Your task to perform on an android device: install app "Google Keep" Image 0: 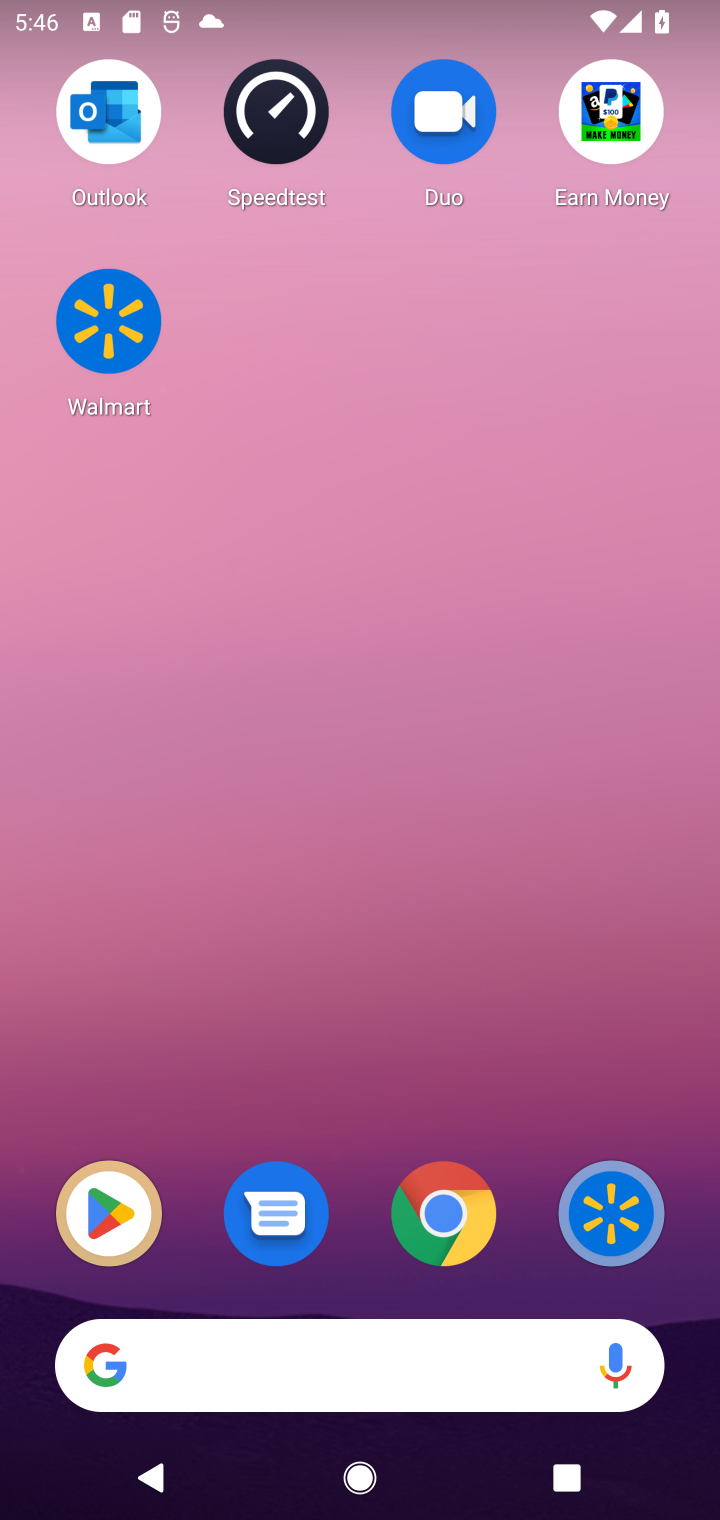
Step 0: drag from (514, 879) to (609, 0)
Your task to perform on an android device: install app "Google Keep" Image 1: 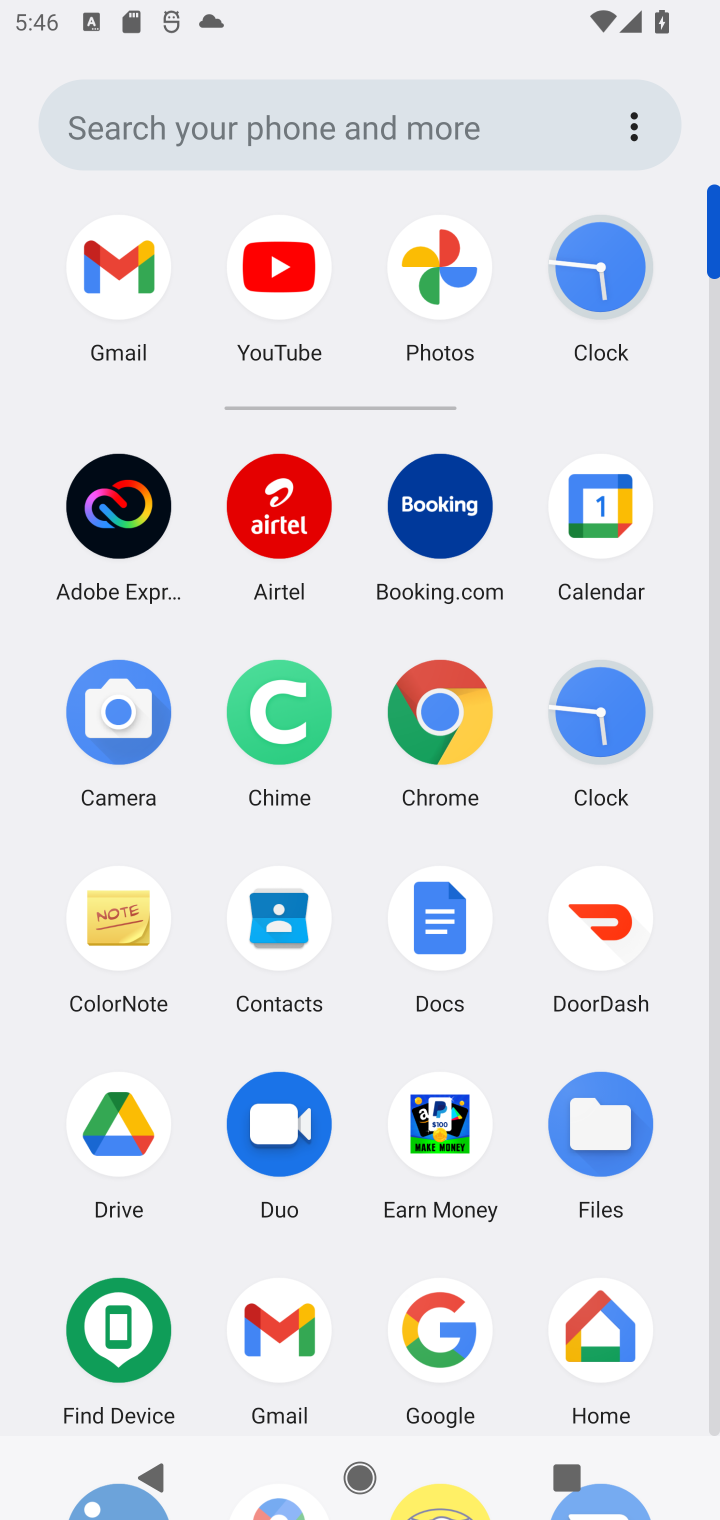
Step 1: drag from (528, 1062) to (614, 407)
Your task to perform on an android device: install app "Google Keep" Image 2: 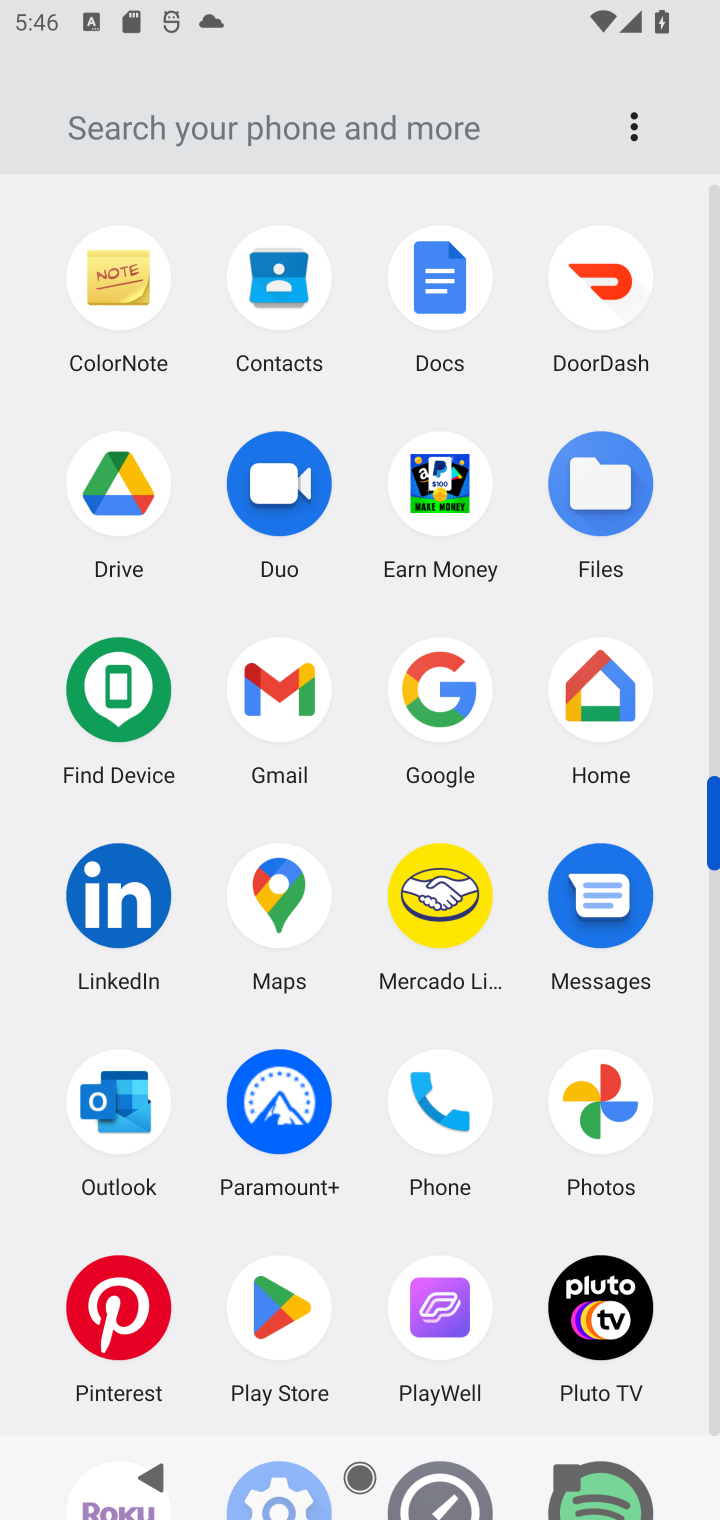
Step 2: click (306, 1266)
Your task to perform on an android device: install app "Google Keep" Image 3: 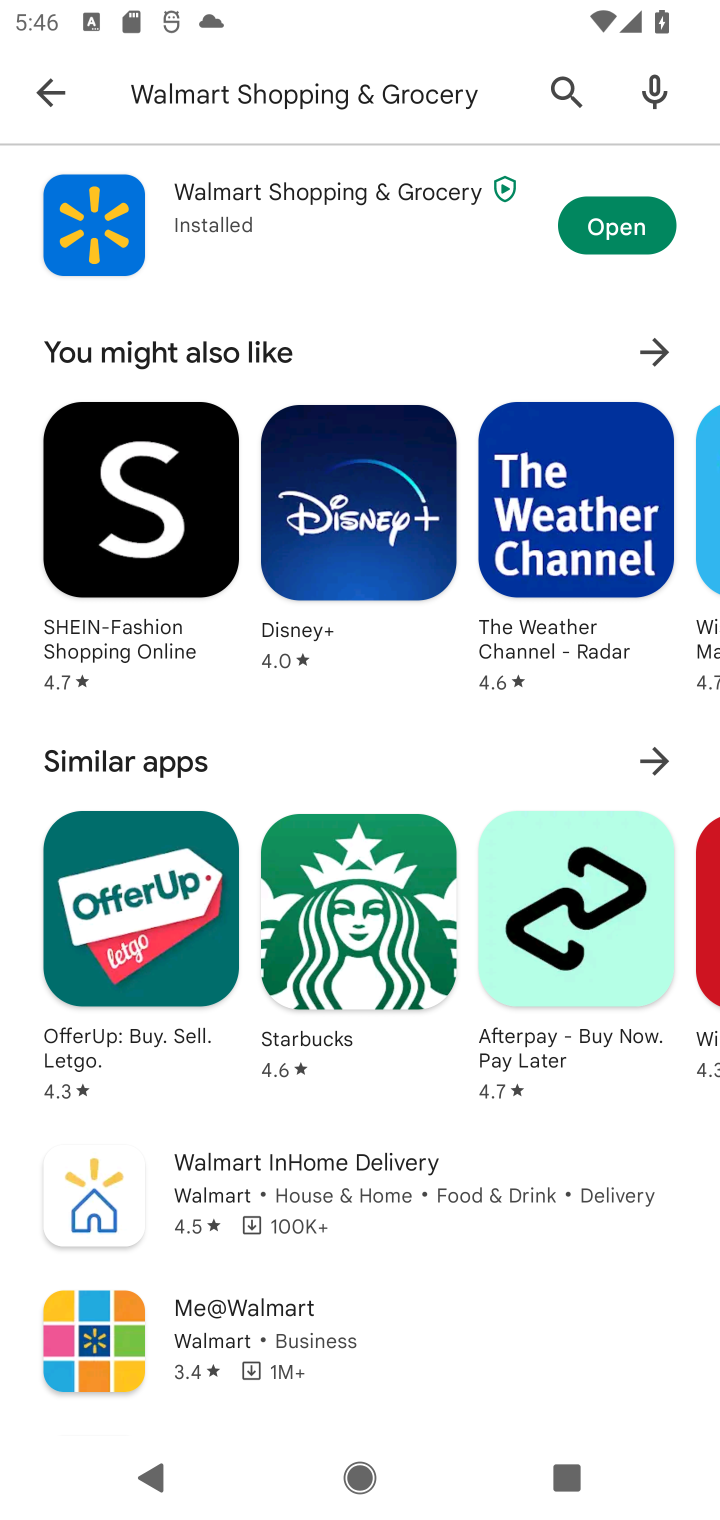
Step 3: click (416, 128)
Your task to perform on an android device: install app "Google Keep" Image 4: 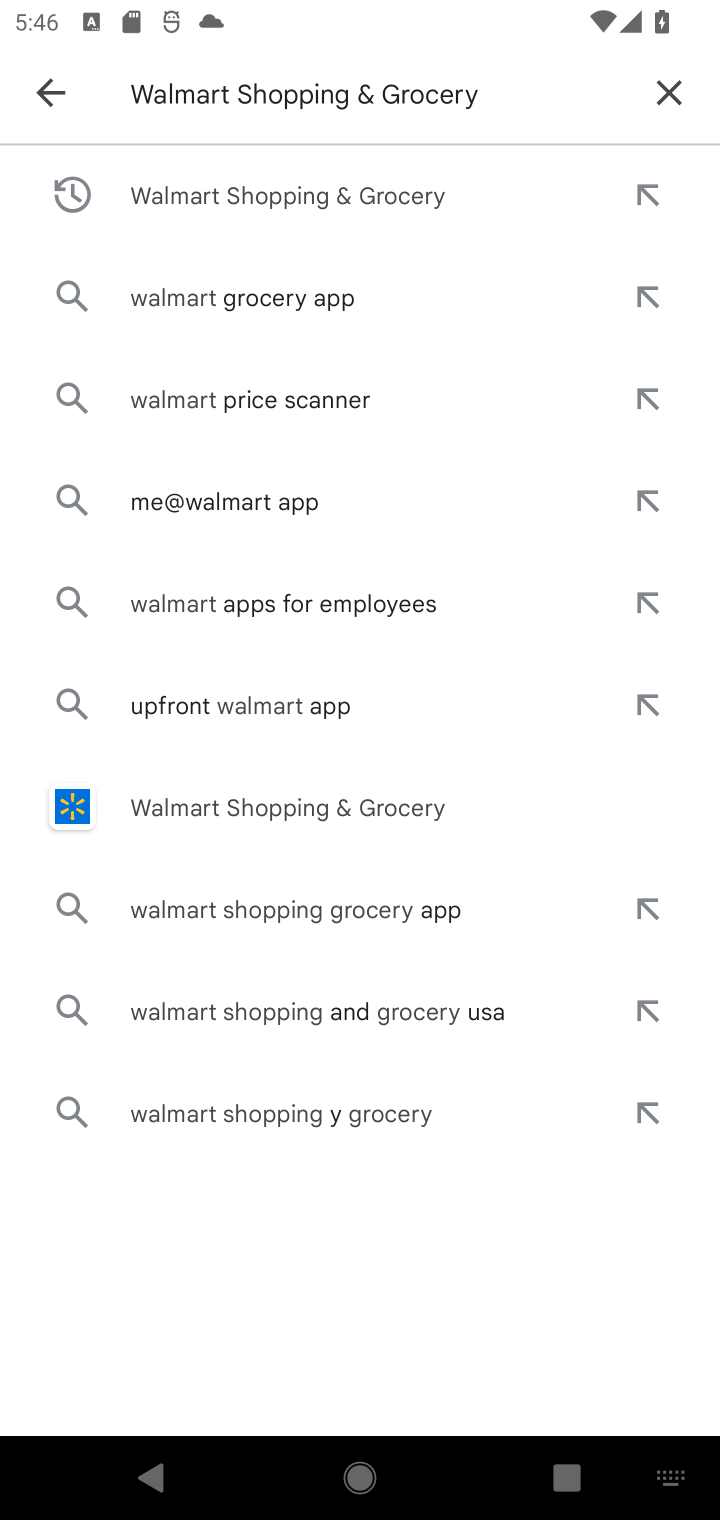
Step 4: click (672, 99)
Your task to perform on an android device: install app "Google Keep" Image 5: 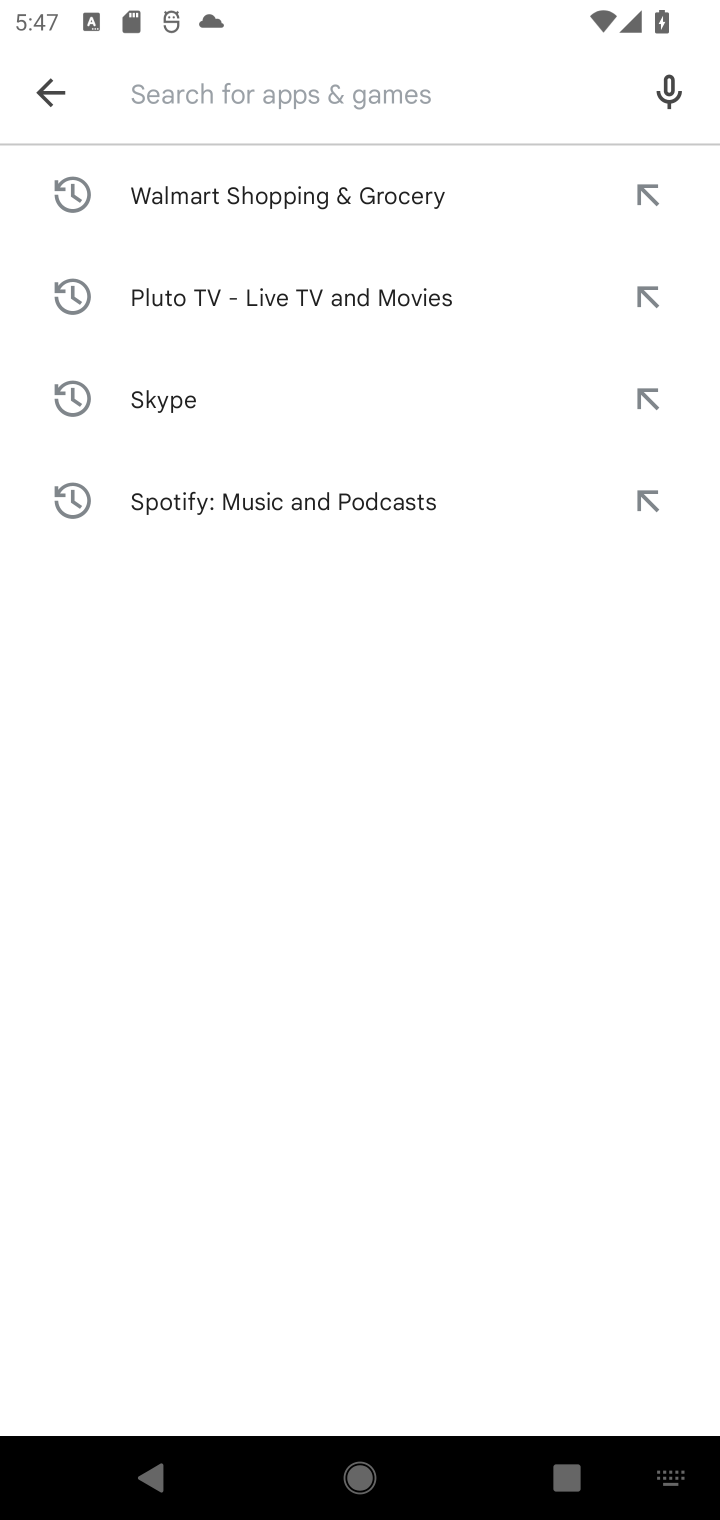
Step 5: type "Google Keep"
Your task to perform on an android device: install app "Google Keep" Image 6: 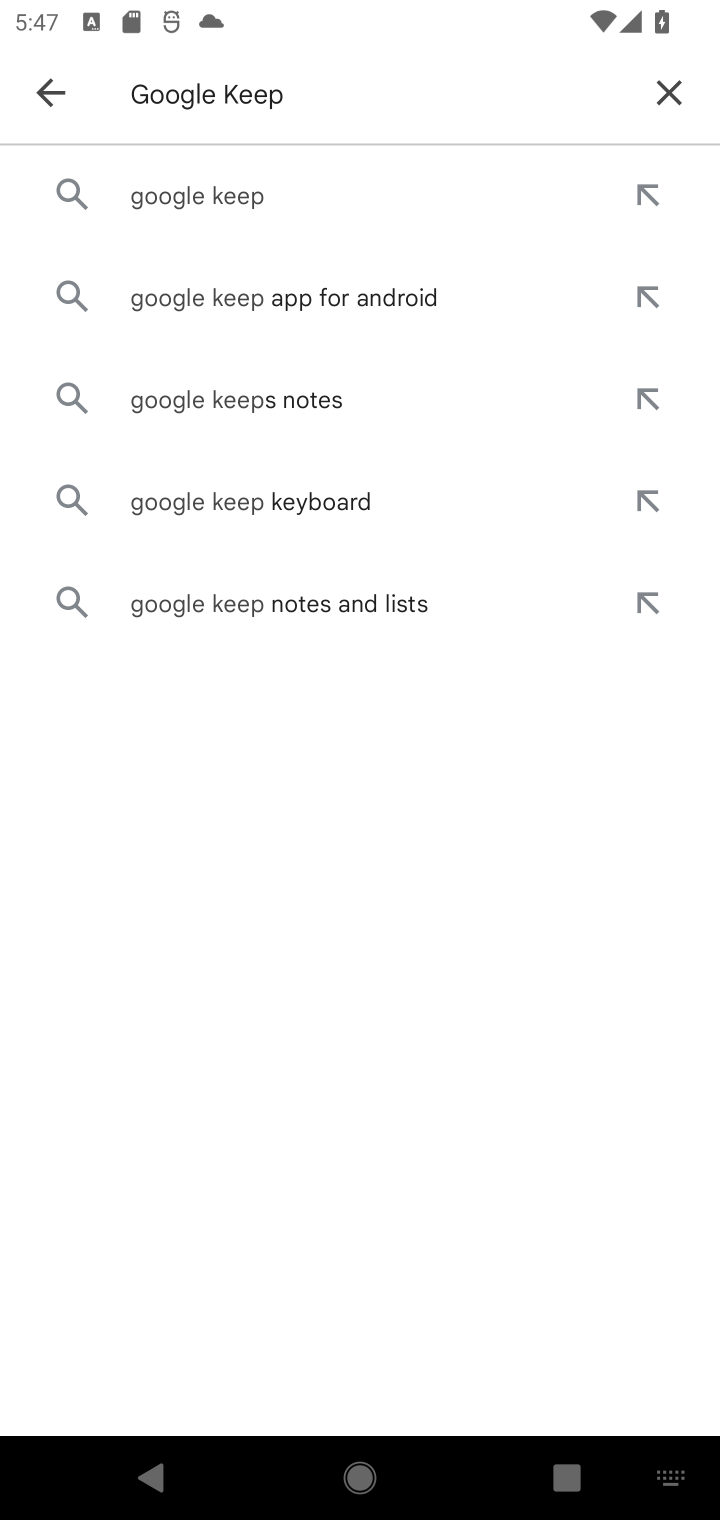
Step 6: type ""
Your task to perform on an android device: install app "Google Keep" Image 7: 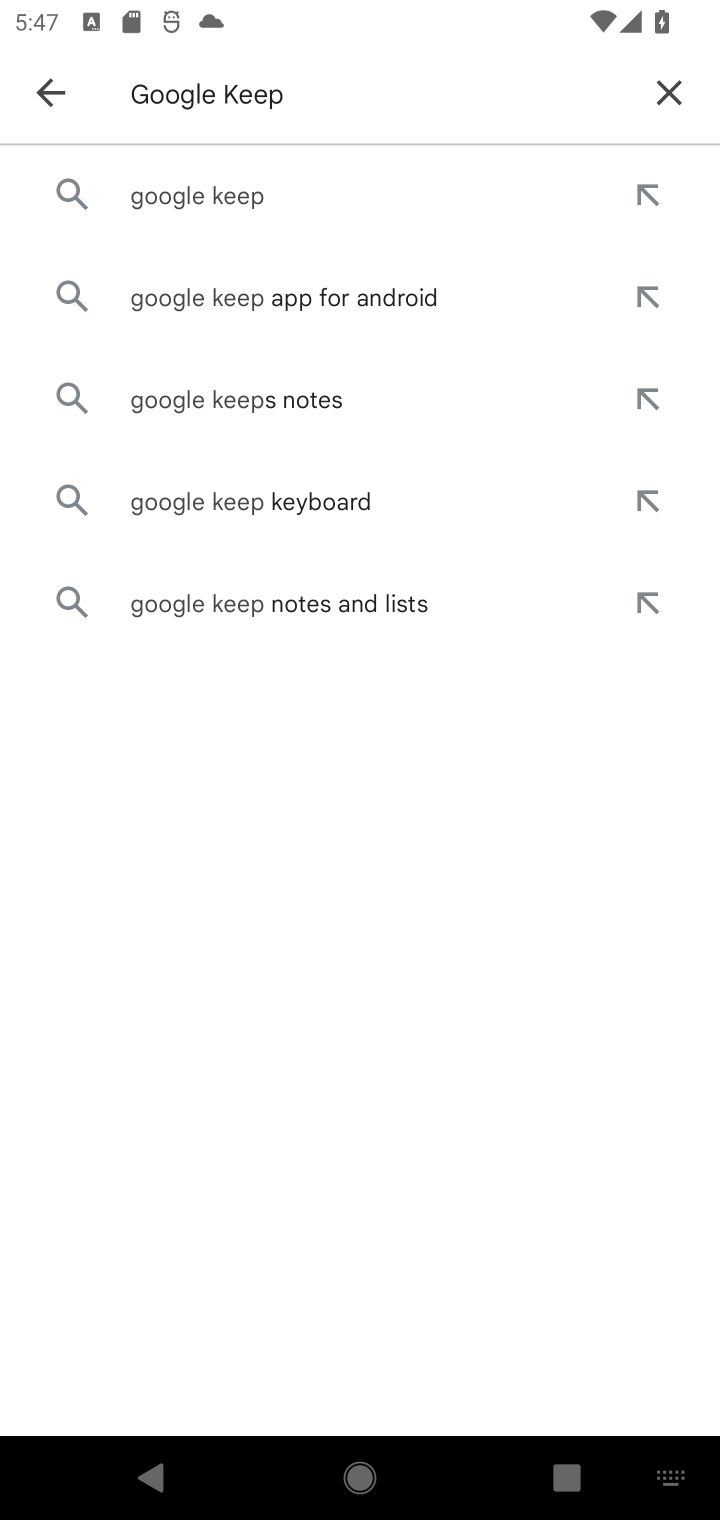
Step 7: type ""
Your task to perform on an android device: install app "Google Keep" Image 8: 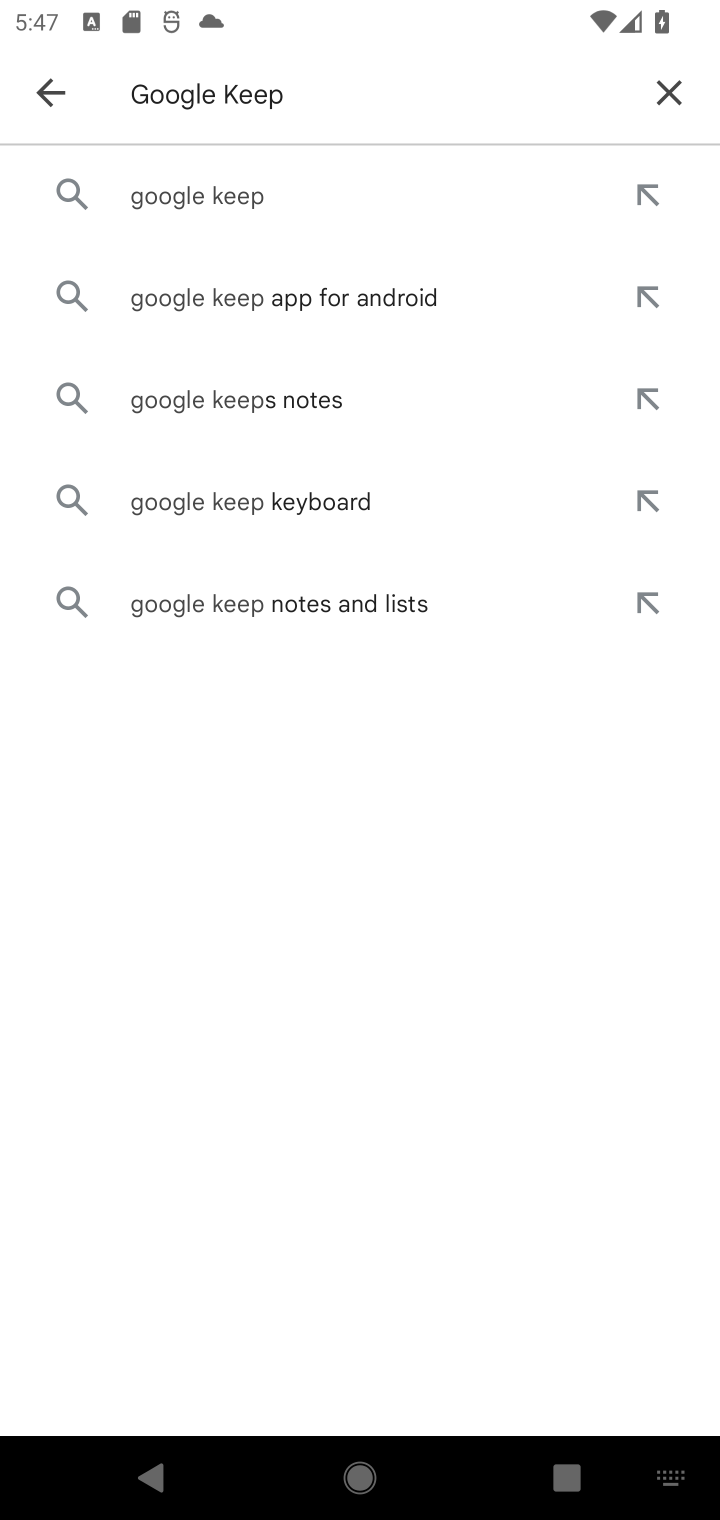
Step 8: press enter
Your task to perform on an android device: install app "Google Keep" Image 9: 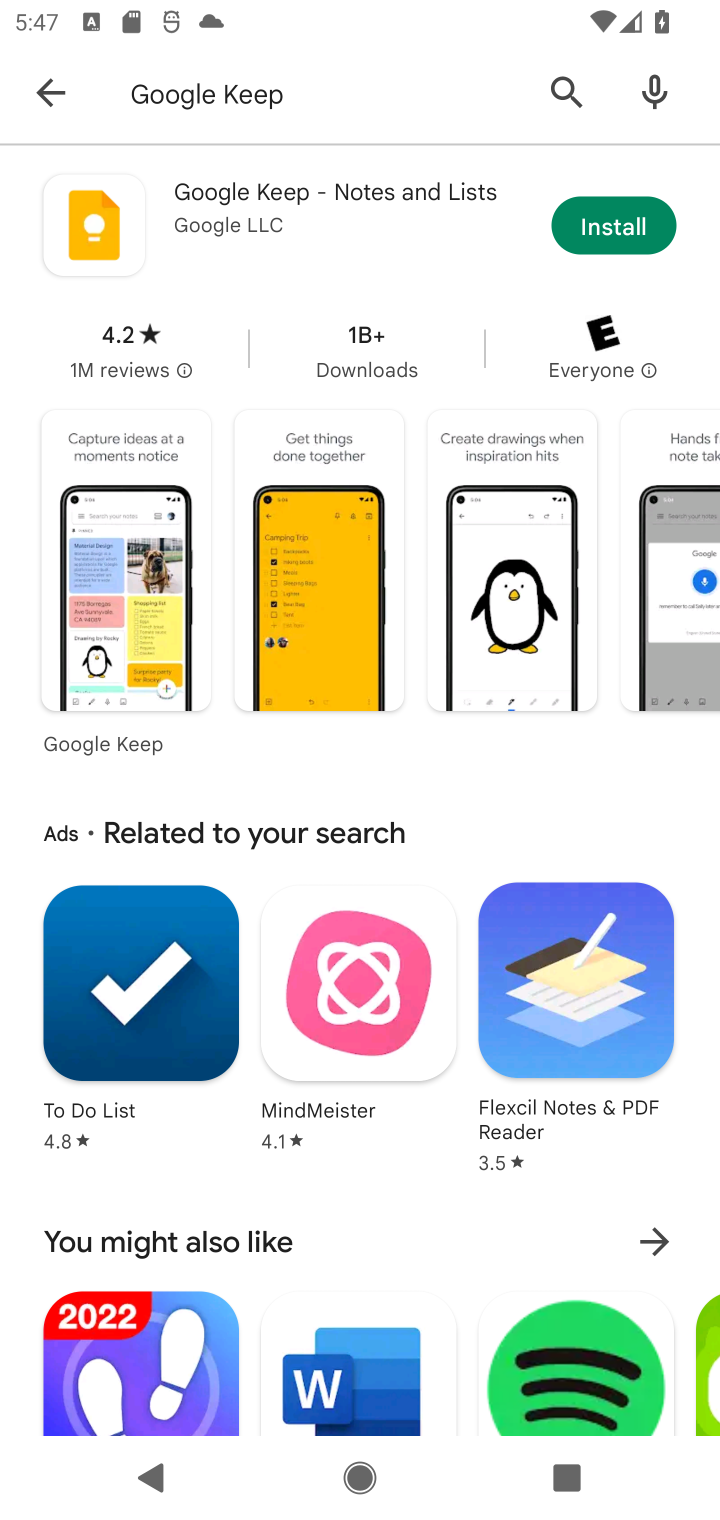
Step 9: click (632, 220)
Your task to perform on an android device: install app "Google Keep" Image 10: 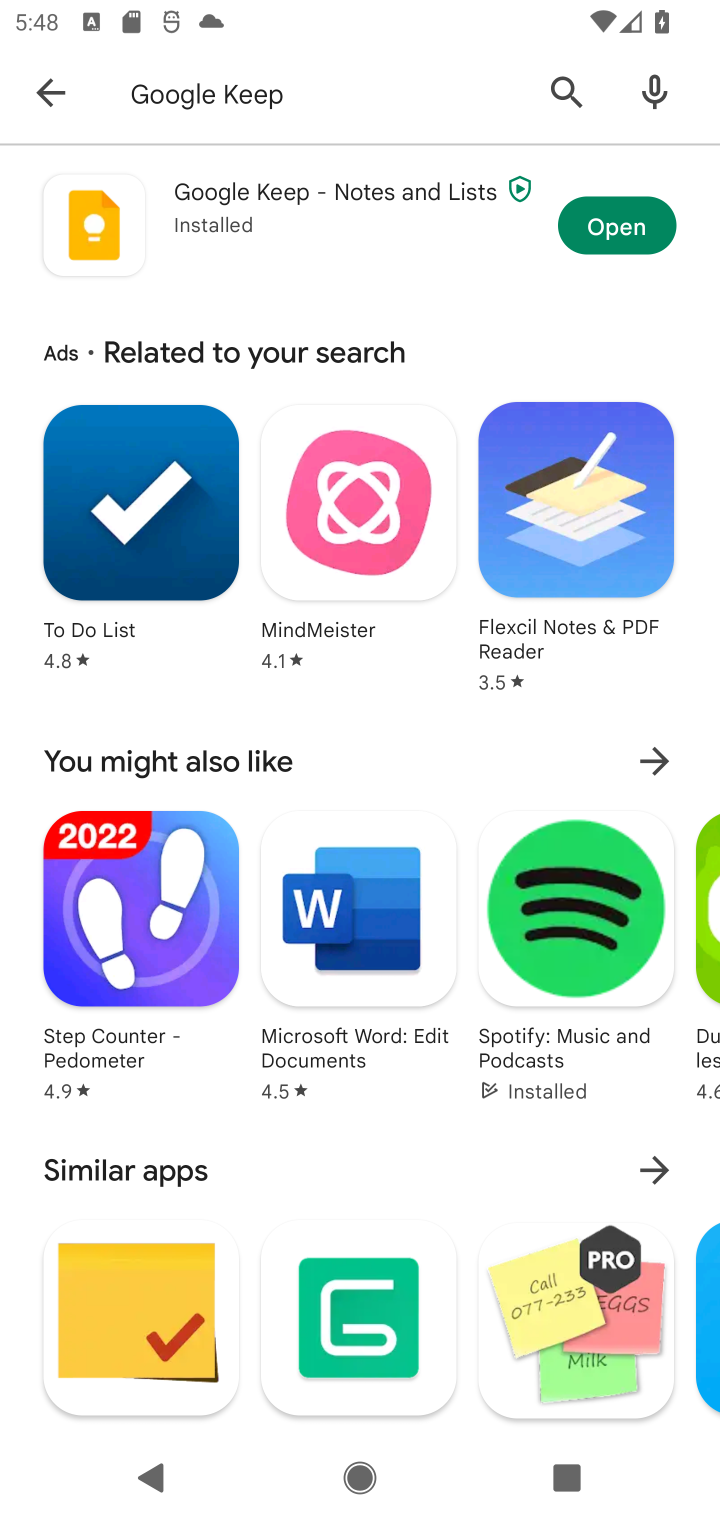
Step 10: task complete